Your task to perform on an android device: toggle sleep mode Image 0: 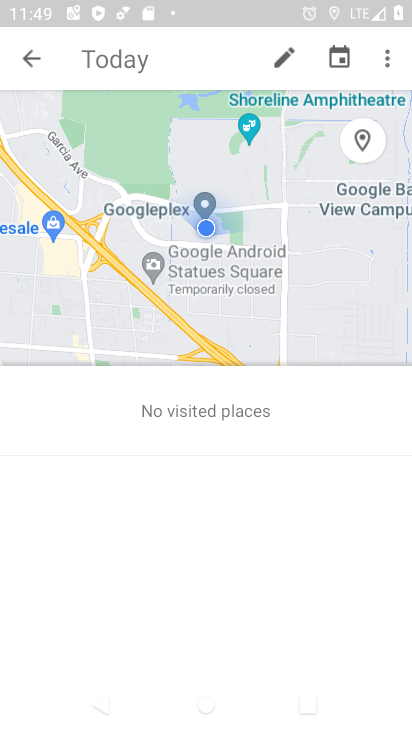
Step 0: press home button
Your task to perform on an android device: toggle sleep mode Image 1: 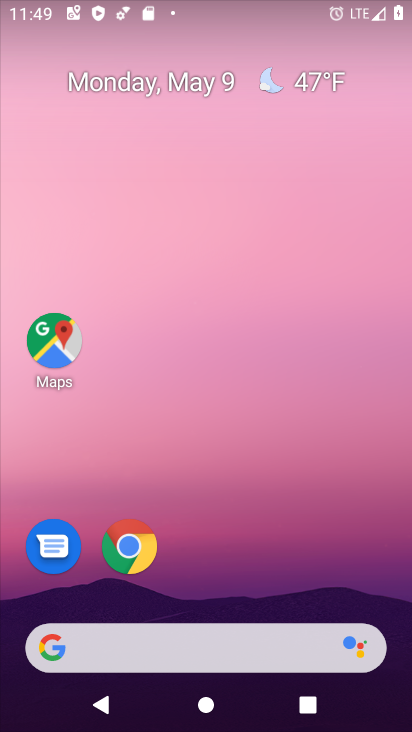
Step 1: drag from (306, 583) to (304, 8)
Your task to perform on an android device: toggle sleep mode Image 2: 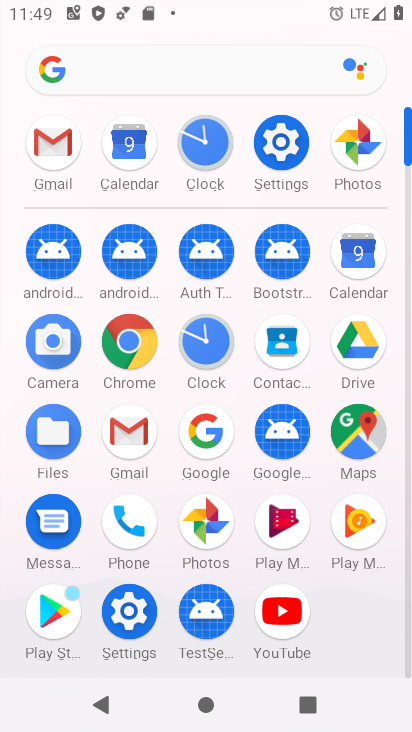
Step 2: click (284, 137)
Your task to perform on an android device: toggle sleep mode Image 3: 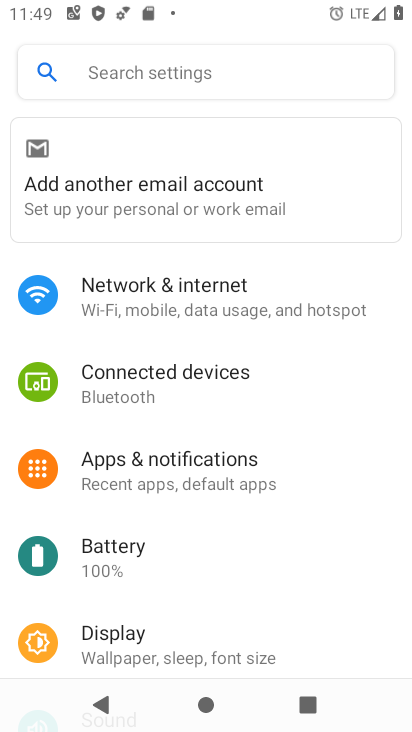
Step 3: click (95, 634)
Your task to perform on an android device: toggle sleep mode Image 4: 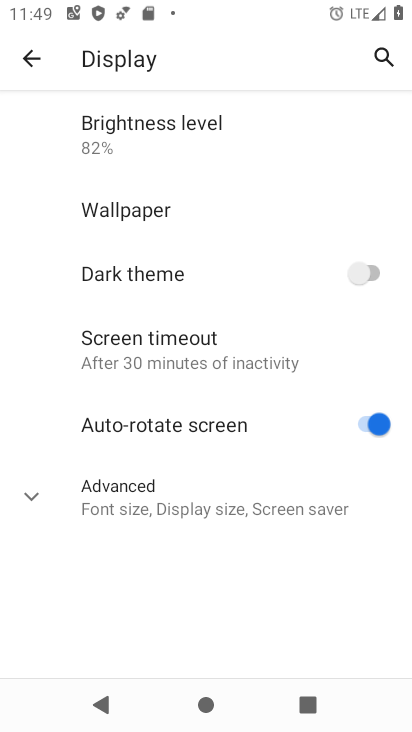
Step 4: click (30, 503)
Your task to perform on an android device: toggle sleep mode Image 5: 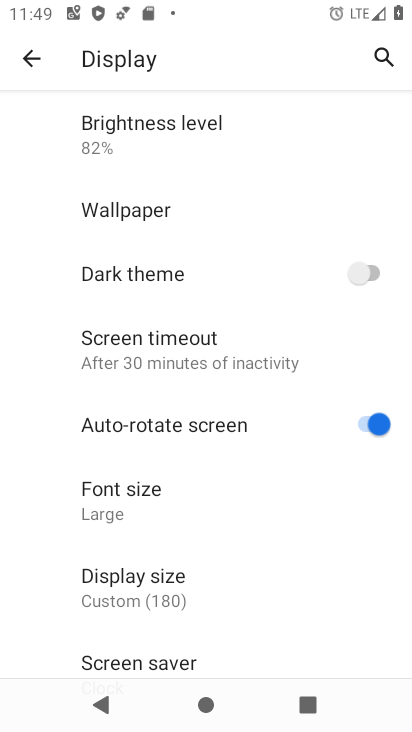
Step 5: task complete